Your task to perform on an android device: toggle sleep mode Image 0: 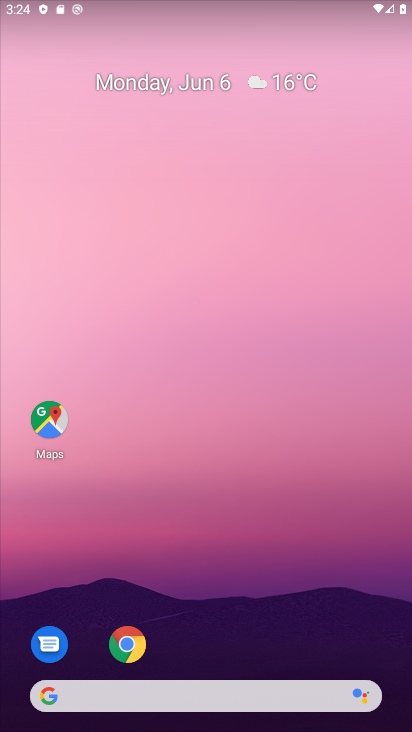
Step 0: drag from (179, 62) to (146, 566)
Your task to perform on an android device: toggle sleep mode Image 1: 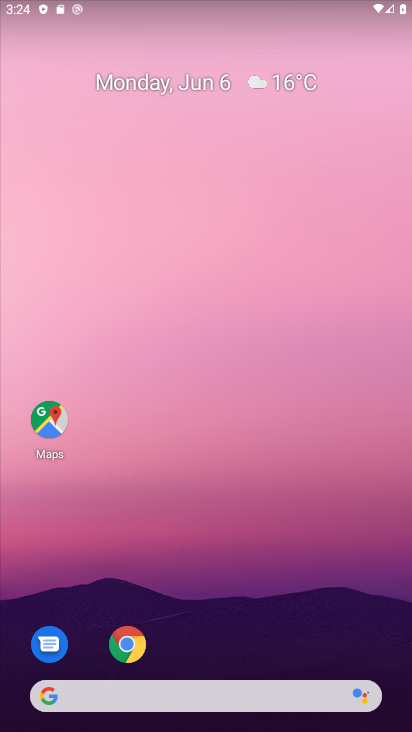
Step 1: drag from (146, 11) to (175, 541)
Your task to perform on an android device: toggle sleep mode Image 2: 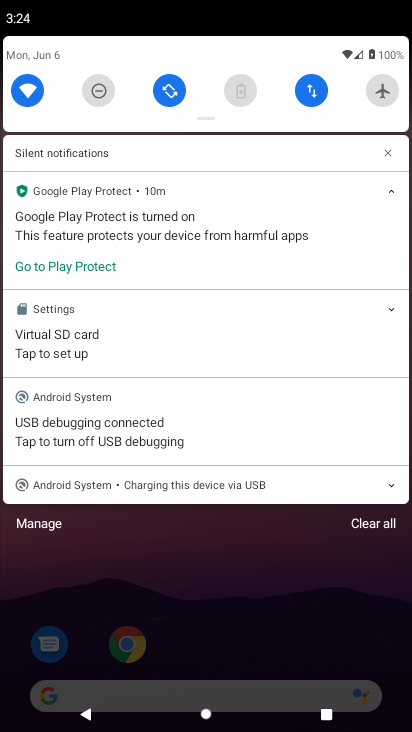
Step 2: drag from (201, 143) to (223, 592)
Your task to perform on an android device: toggle sleep mode Image 3: 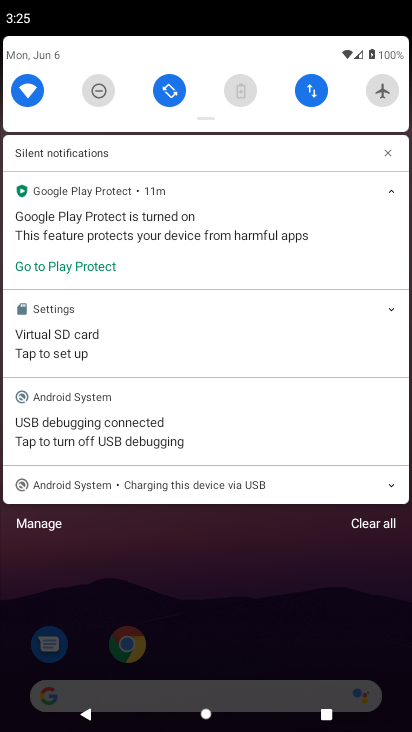
Step 3: drag from (210, 127) to (293, 571)
Your task to perform on an android device: toggle sleep mode Image 4: 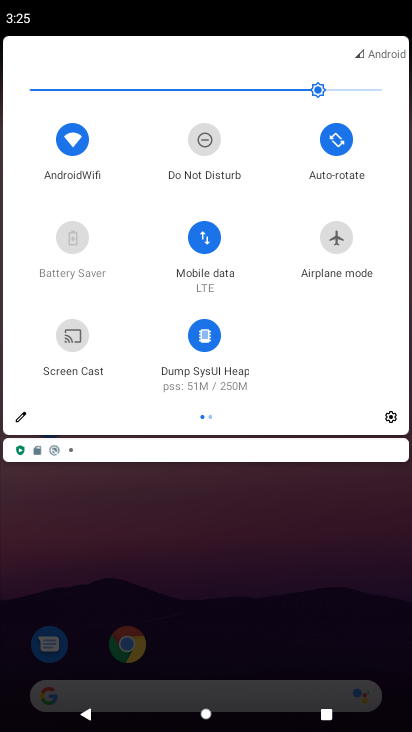
Step 4: click (22, 419)
Your task to perform on an android device: toggle sleep mode Image 5: 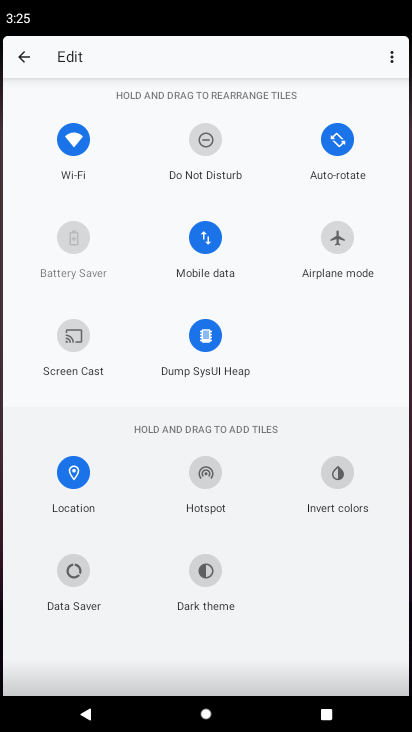
Step 5: task complete